Your task to perform on an android device: Is it going to rain today? Image 0: 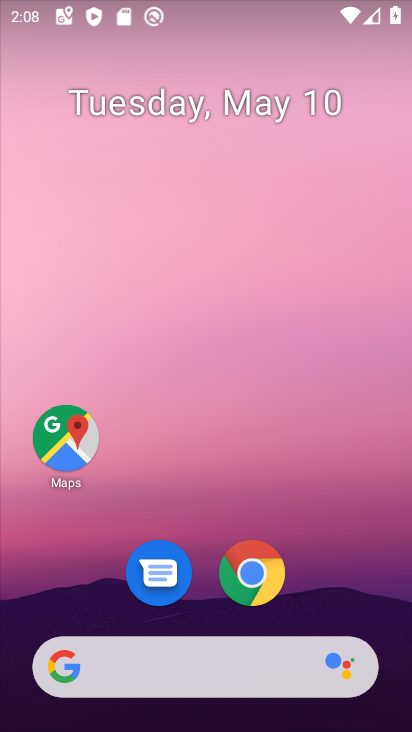
Step 0: click (196, 661)
Your task to perform on an android device: Is it going to rain today? Image 1: 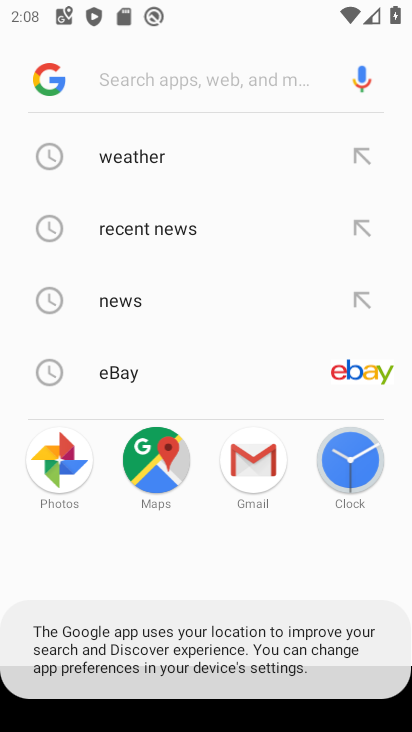
Step 1: type "Is it going to rain today?"
Your task to perform on an android device: Is it going to rain today? Image 2: 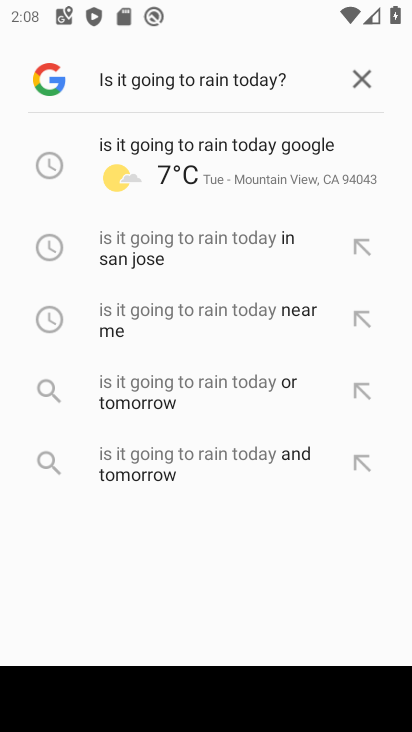
Step 2: click (280, 154)
Your task to perform on an android device: Is it going to rain today? Image 3: 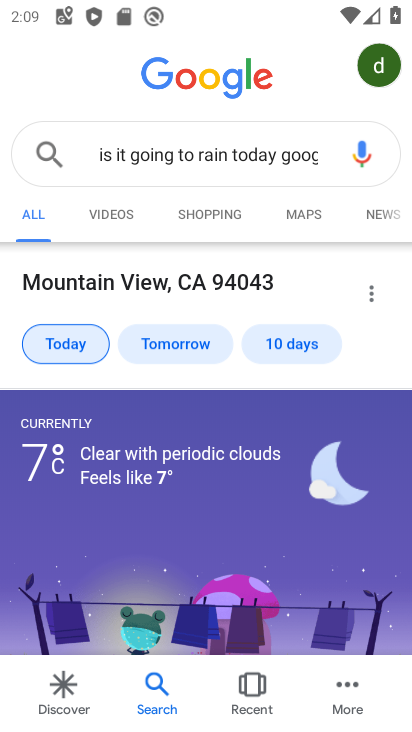
Step 3: task complete